Your task to perform on an android device: toggle translation in the chrome app Image 0: 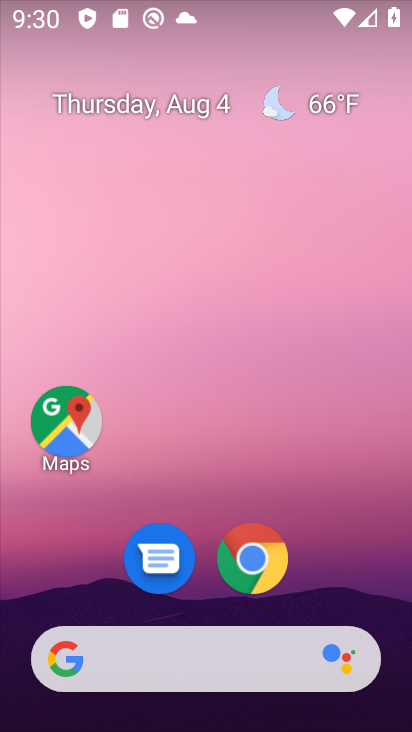
Step 0: drag from (318, 607) to (378, 183)
Your task to perform on an android device: toggle translation in the chrome app Image 1: 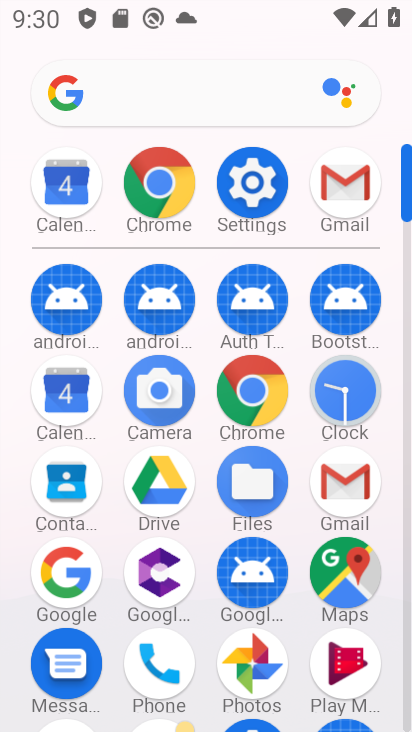
Step 1: click (251, 384)
Your task to perform on an android device: toggle translation in the chrome app Image 2: 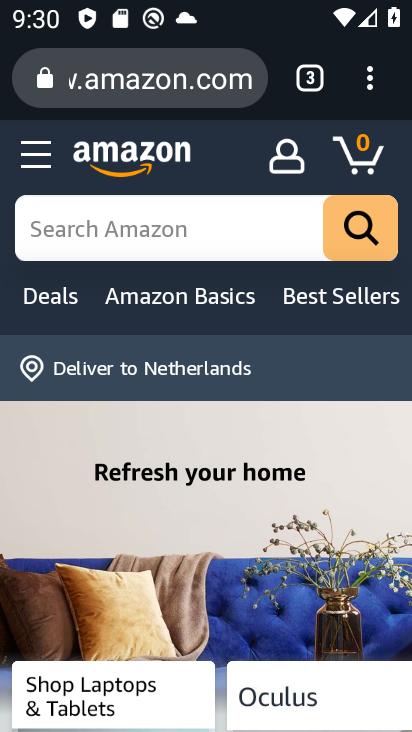
Step 2: drag from (361, 72) to (135, 633)
Your task to perform on an android device: toggle translation in the chrome app Image 3: 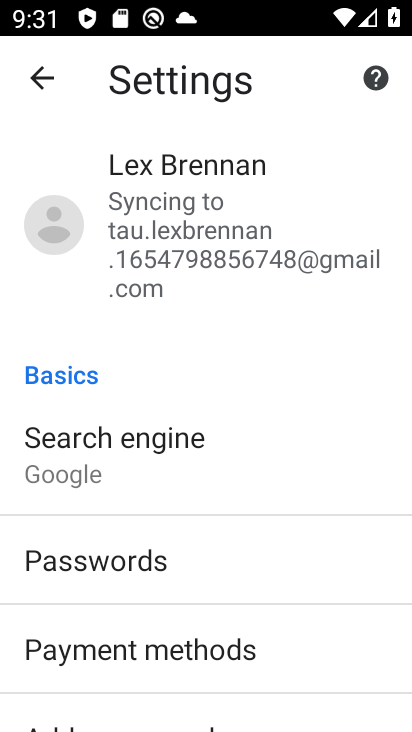
Step 3: drag from (291, 660) to (348, 155)
Your task to perform on an android device: toggle translation in the chrome app Image 4: 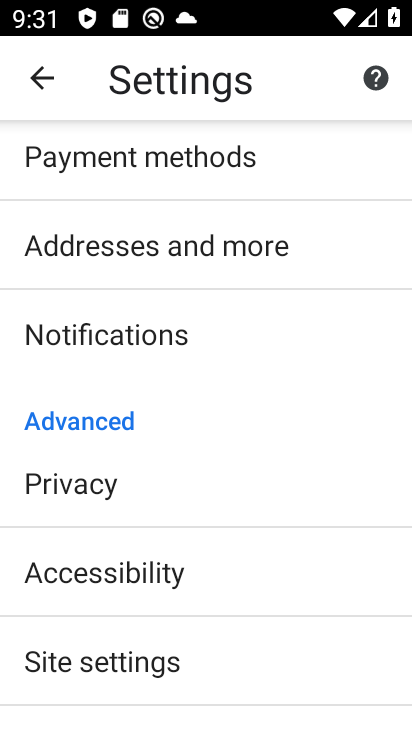
Step 4: drag from (234, 580) to (330, 148)
Your task to perform on an android device: toggle translation in the chrome app Image 5: 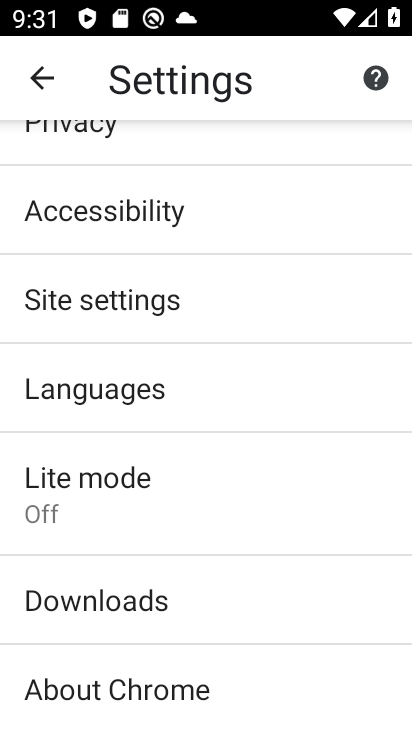
Step 5: click (117, 389)
Your task to perform on an android device: toggle translation in the chrome app Image 6: 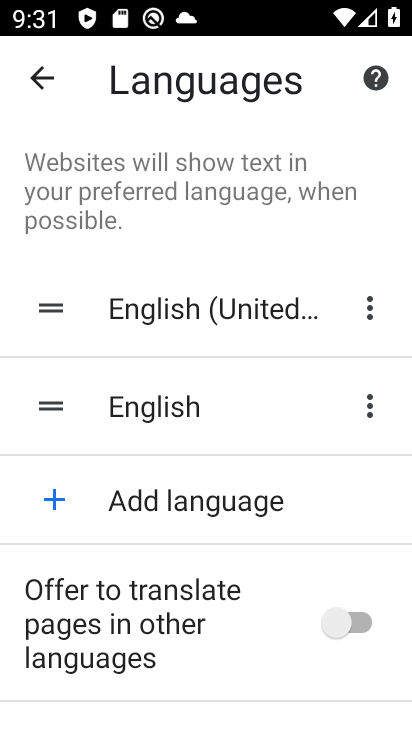
Step 6: click (332, 623)
Your task to perform on an android device: toggle translation in the chrome app Image 7: 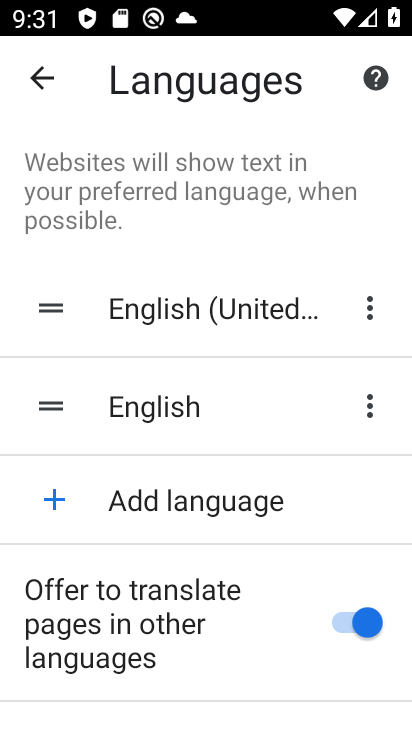
Step 7: task complete